Your task to perform on an android device: change your default location settings in chrome Image 0: 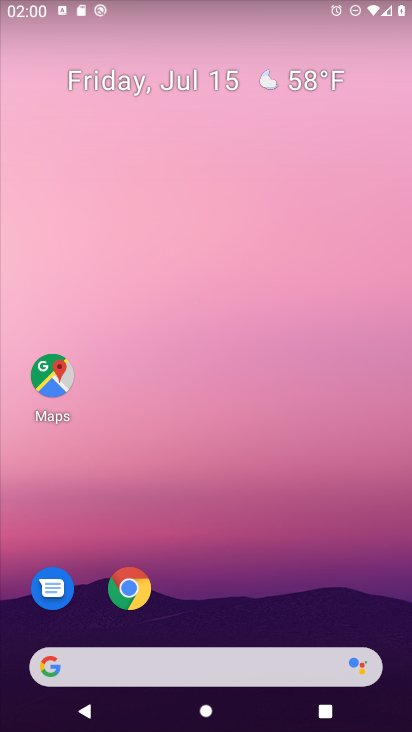
Step 0: click (127, 592)
Your task to perform on an android device: change your default location settings in chrome Image 1: 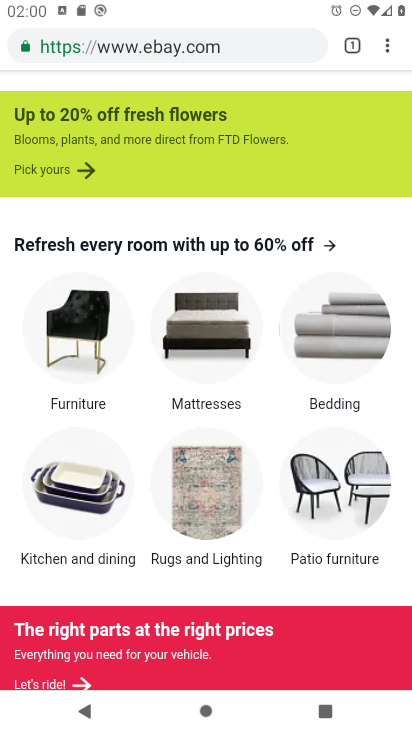
Step 1: click (386, 51)
Your task to perform on an android device: change your default location settings in chrome Image 2: 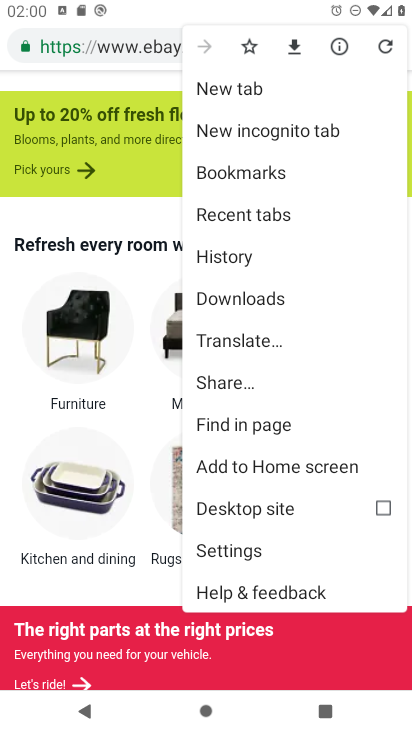
Step 2: click (248, 545)
Your task to perform on an android device: change your default location settings in chrome Image 3: 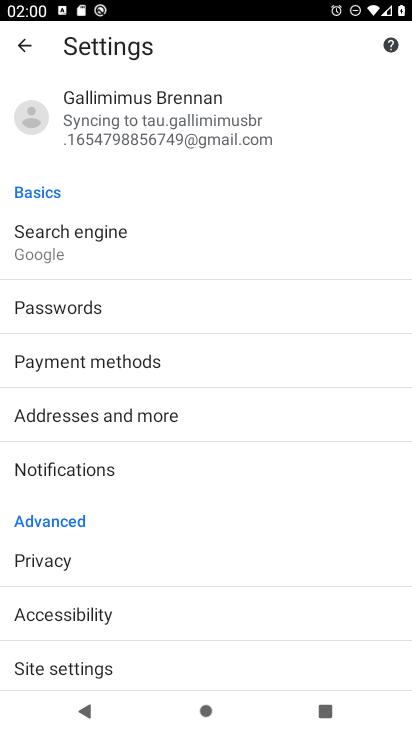
Step 3: drag from (190, 659) to (211, 323)
Your task to perform on an android device: change your default location settings in chrome Image 4: 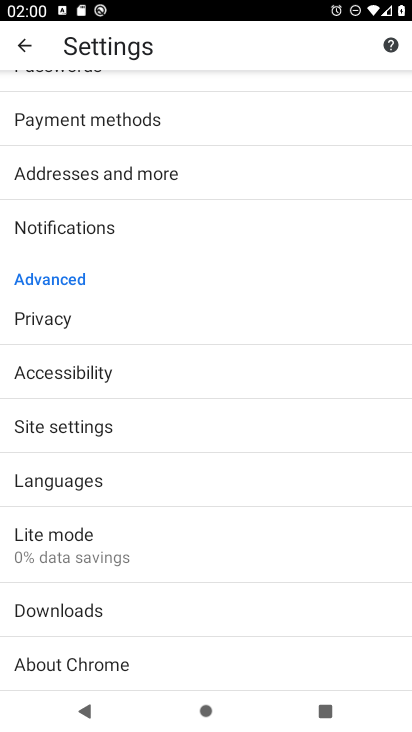
Step 4: click (69, 419)
Your task to perform on an android device: change your default location settings in chrome Image 5: 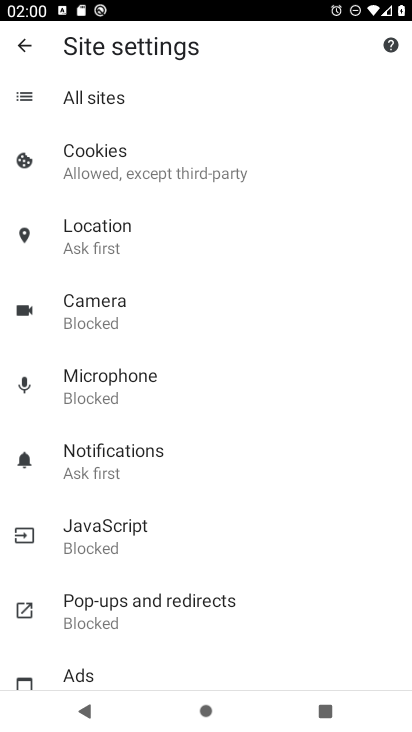
Step 5: click (98, 224)
Your task to perform on an android device: change your default location settings in chrome Image 6: 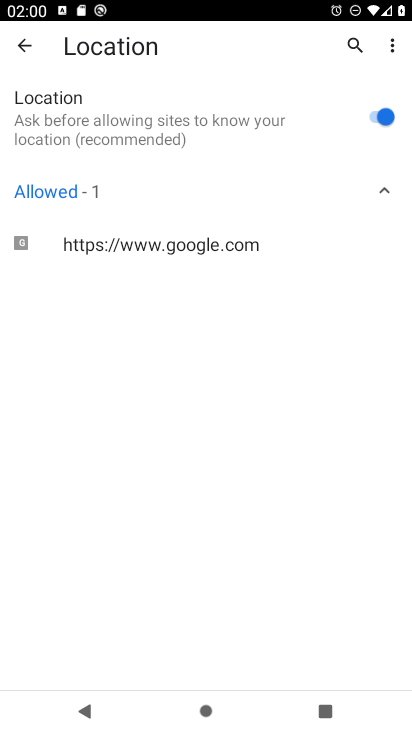
Step 6: click (369, 114)
Your task to perform on an android device: change your default location settings in chrome Image 7: 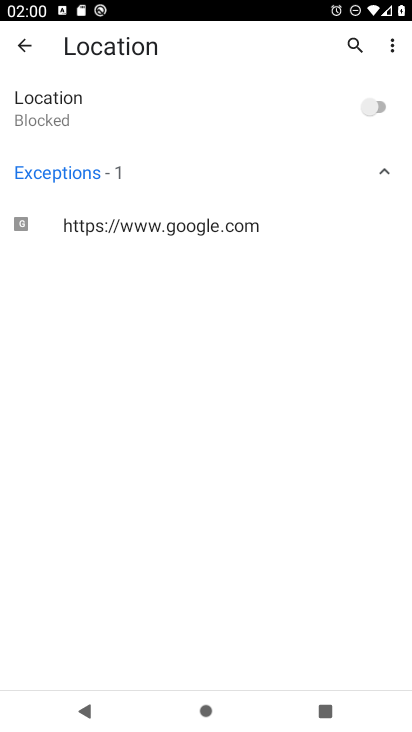
Step 7: task complete